Your task to perform on an android device: Turn off the flashlight Image 0: 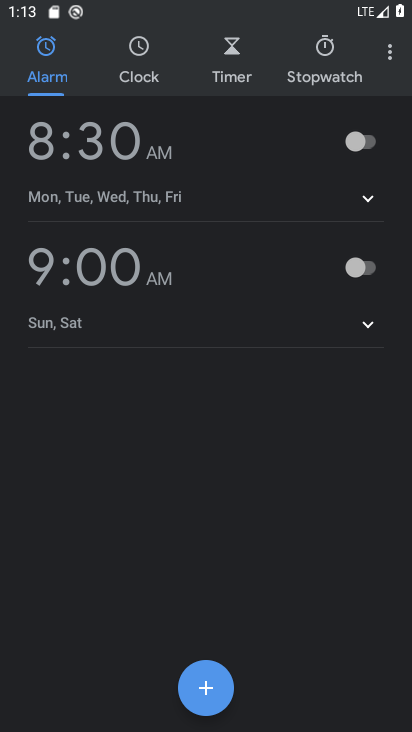
Step 0: press home button
Your task to perform on an android device: Turn off the flashlight Image 1: 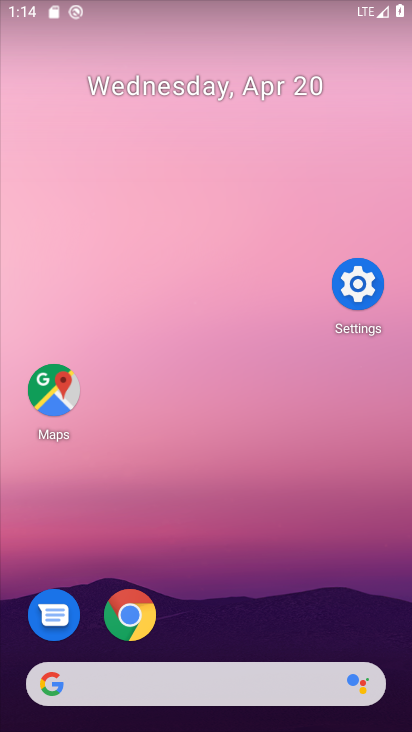
Step 1: drag from (199, 631) to (349, 174)
Your task to perform on an android device: Turn off the flashlight Image 2: 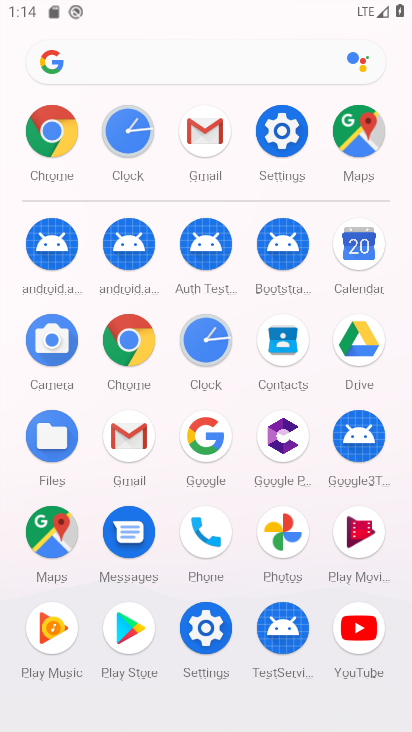
Step 2: click (199, 604)
Your task to perform on an android device: Turn off the flashlight Image 3: 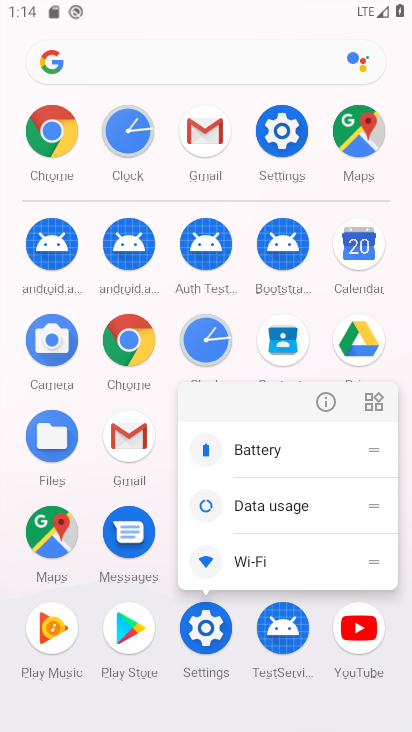
Step 3: click (326, 393)
Your task to perform on an android device: Turn off the flashlight Image 4: 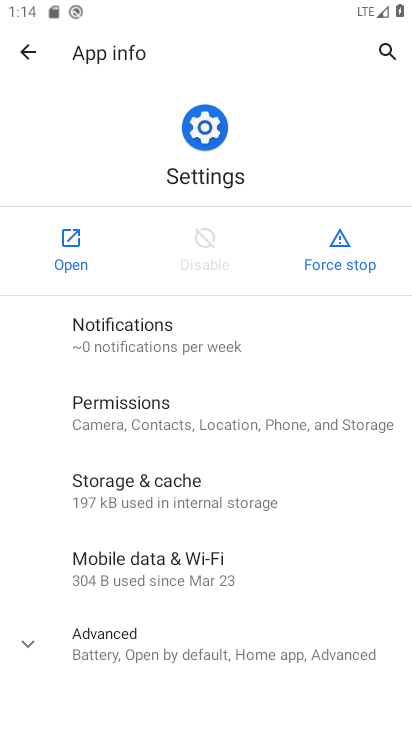
Step 4: click (56, 236)
Your task to perform on an android device: Turn off the flashlight Image 5: 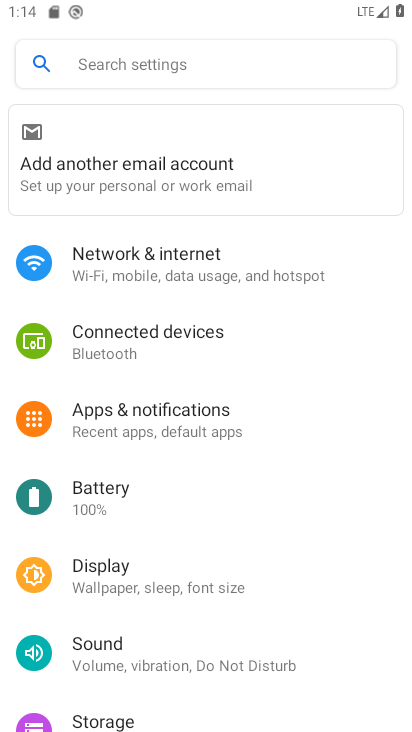
Step 5: click (296, 52)
Your task to perform on an android device: Turn off the flashlight Image 6: 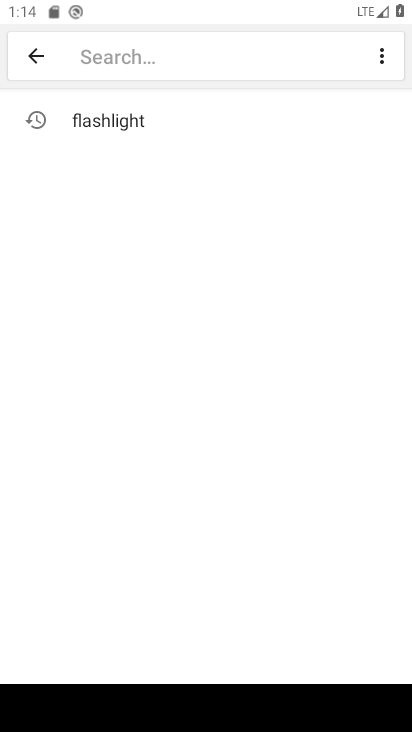
Step 6: click (136, 128)
Your task to perform on an android device: Turn off the flashlight Image 7: 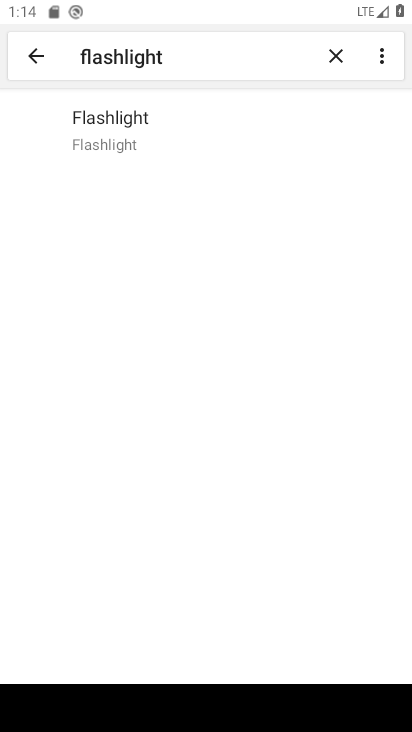
Step 7: task complete